Your task to perform on an android device: turn off priority inbox in the gmail app Image 0: 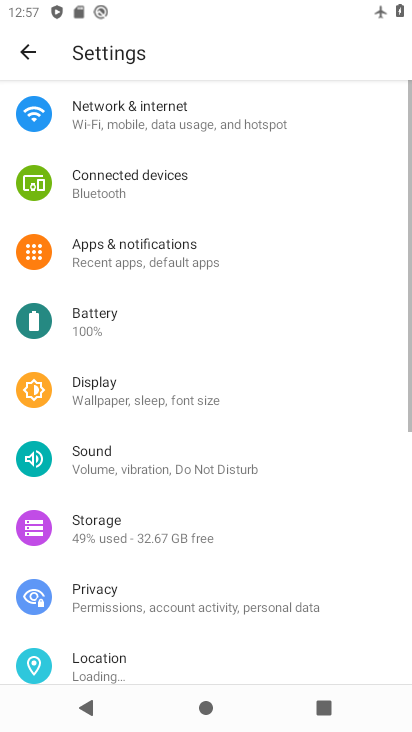
Step 0: press home button
Your task to perform on an android device: turn off priority inbox in the gmail app Image 1: 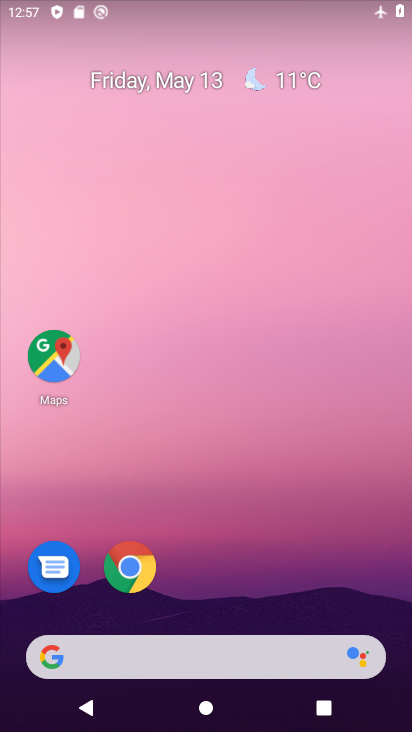
Step 1: drag from (228, 603) to (307, 69)
Your task to perform on an android device: turn off priority inbox in the gmail app Image 2: 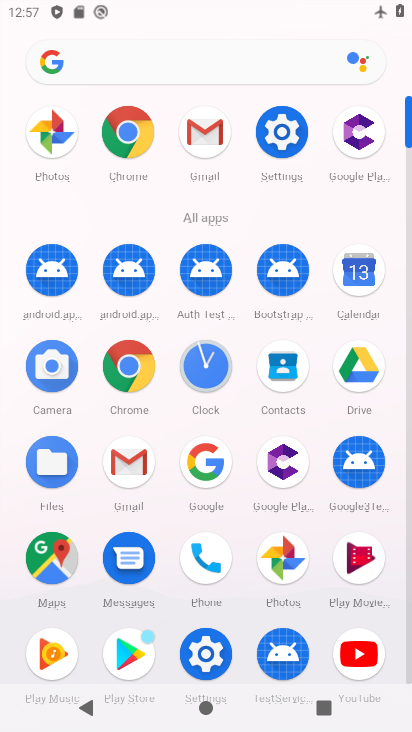
Step 2: click (130, 465)
Your task to perform on an android device: turn off priority inbox in the gmail app Image 3: 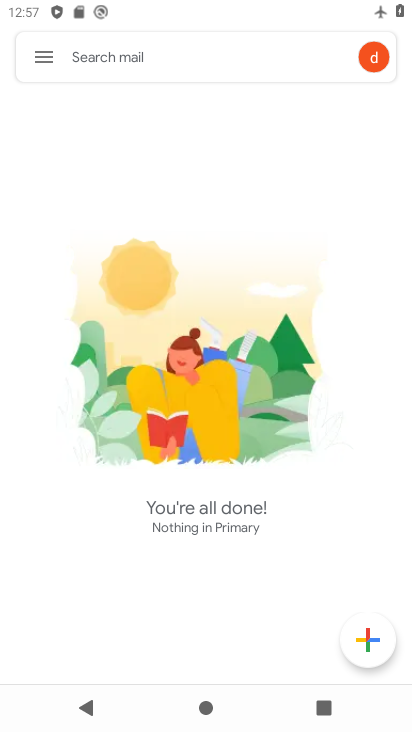
Step 3: click (37, 54)
Your task to perform on an android device: turn off priority inbox in the gmail app Image 4: 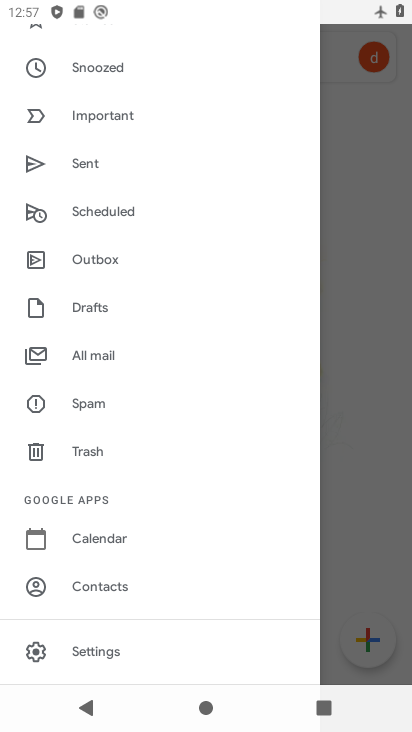
Step 4: click (131, 645)
Your task to perform on an android device: turn off priority inbox in the gmail app Image 5: 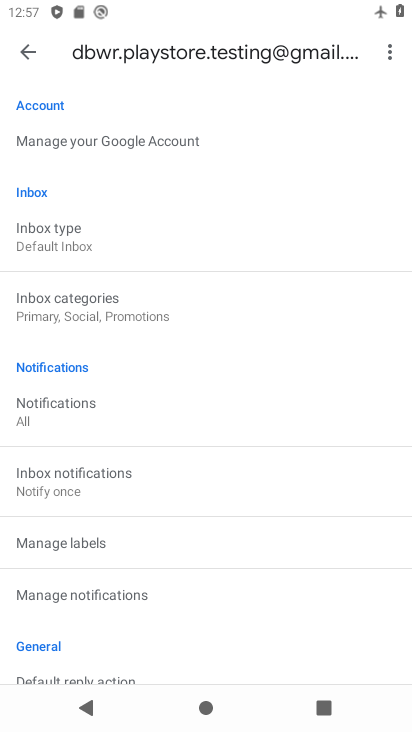
Step 5: click (125, 242)
Your task to perform on an android device: turn off priority inbox in the gmail app Image 6: 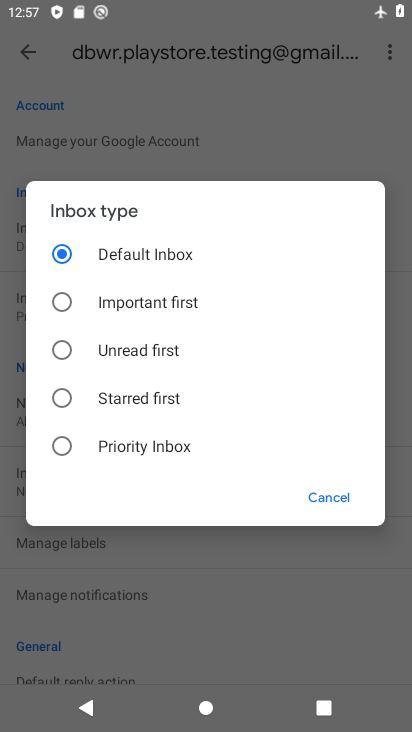
Step 6: click (63, 392)
Your task to perform on an android device: turn off priority inbox in the gmail app Image 7: 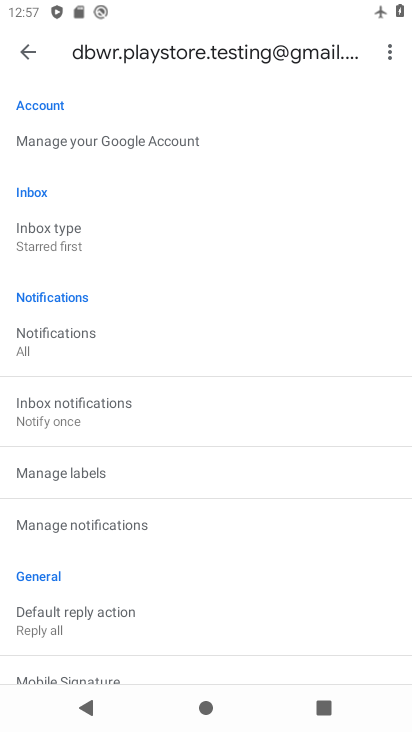
Step 7: task complete